Your task to perform on an android device: open chrome and create a bookmark for the current page Image 0: 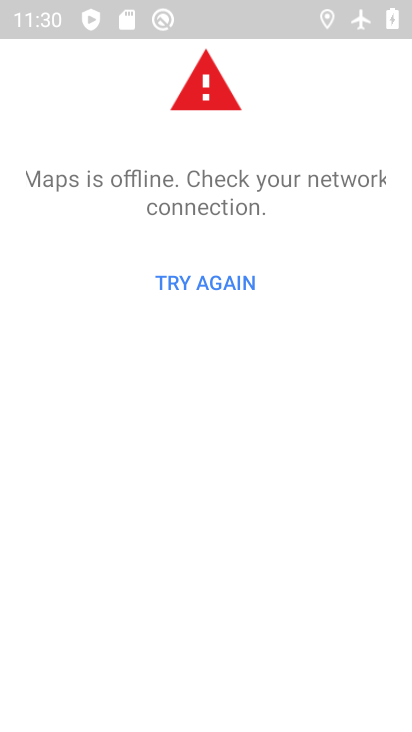
Step 0: press home button
Your task to perform on an android device: open chrome and create a bookmark for the current page Image 1: 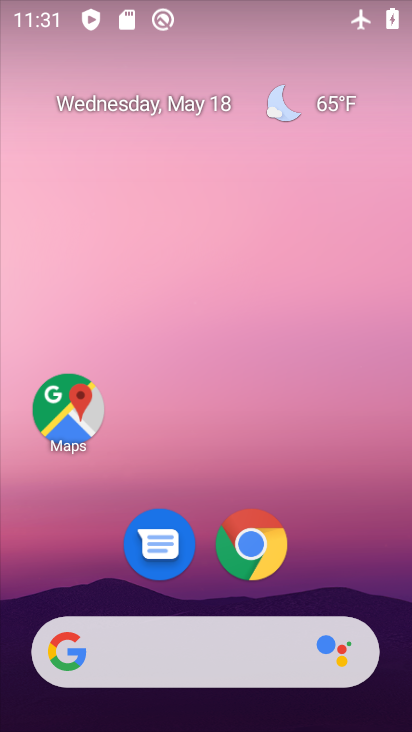
Step 1: drag from (364, 578) to (357, 79)
Your task to perform on an android device: open chrome and create a bookmark for the current page Image 2: 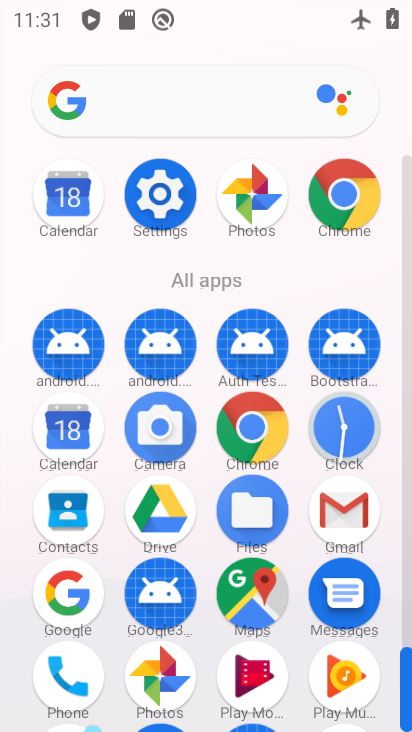
Step 2: click (267, 431)
Your task to perform on an android device: open chrome and create a bookmark for the current page Image 3: 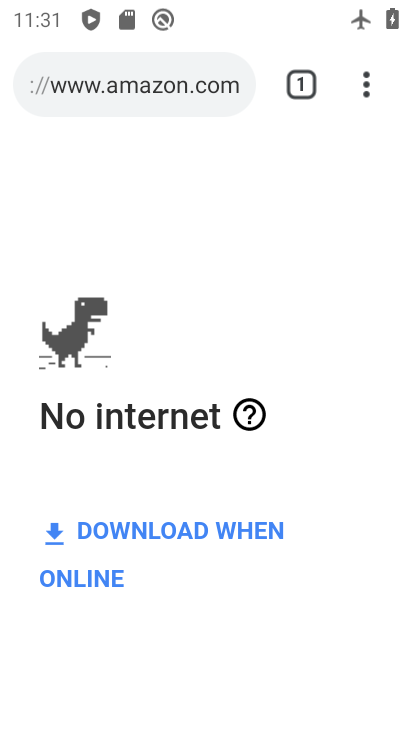
Step 3: click (366, 93)
Your task to perform on an android device: open chrome and create a bookmark for the current page Image 4: 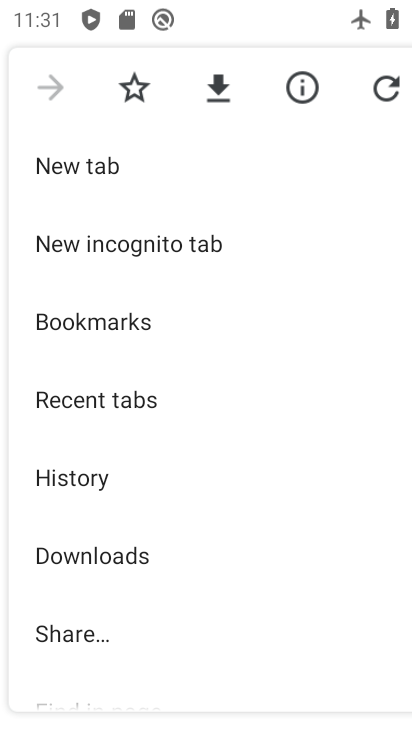
Step 4: click (133, 86)
Your task to perform on an android device: open chrome and create a bookmark for the current page Image 5: 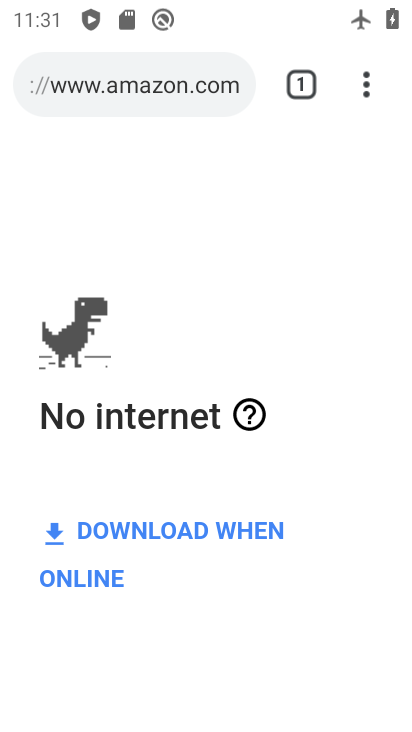
Step 5: task complete